Your task to perform on an android device: Open network settings Image 0: 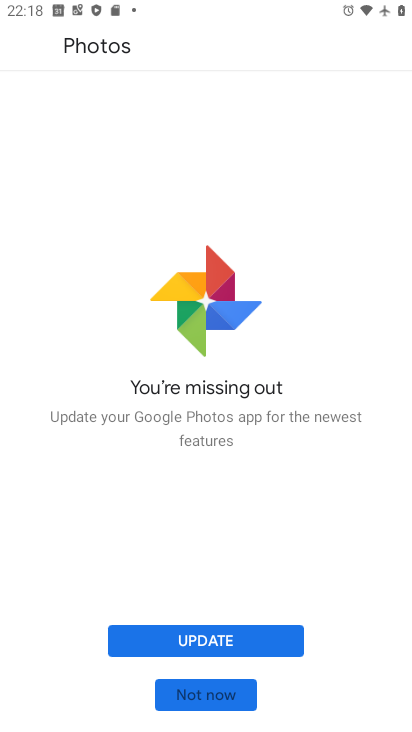
Step 0: press home button
Your task to perform on an android device: Open network settings Image 1: 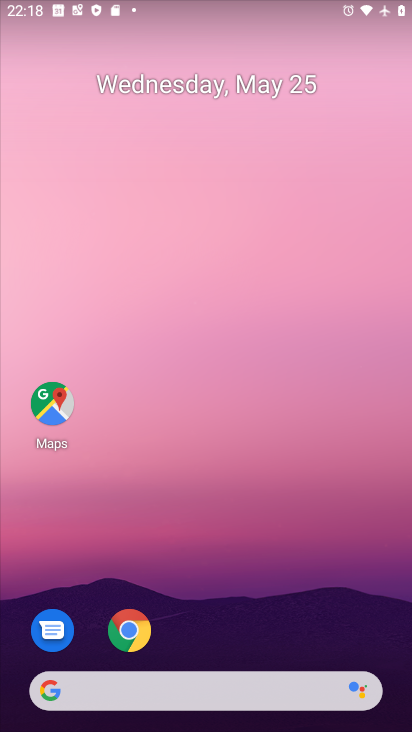
Step 1: drag from (228, 637) to (223, 309)
Your task to perform on an android device: Open network settings Image 2: 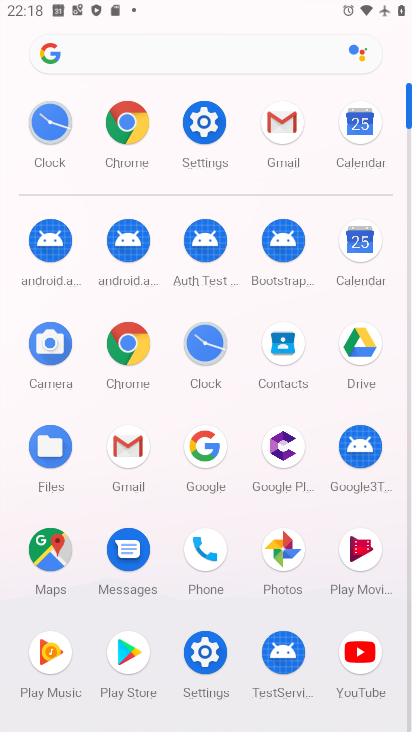
Step 2: click (220, 130)
Your task to perform on an android device: Open network settings Image 3: 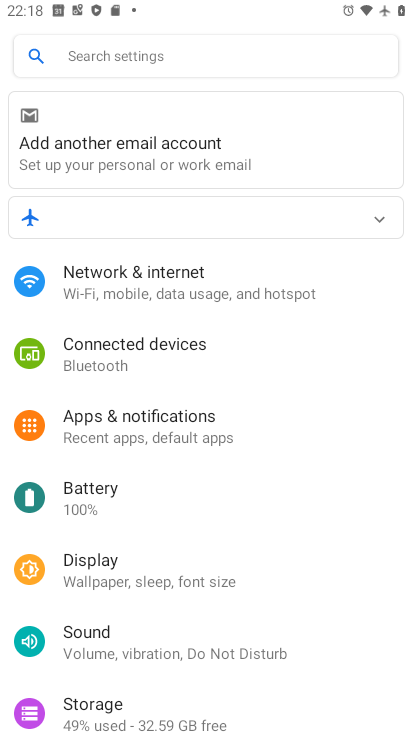
Step 3: click (124, 280)
Your task to perform on an android device: Open network settings Image 4: 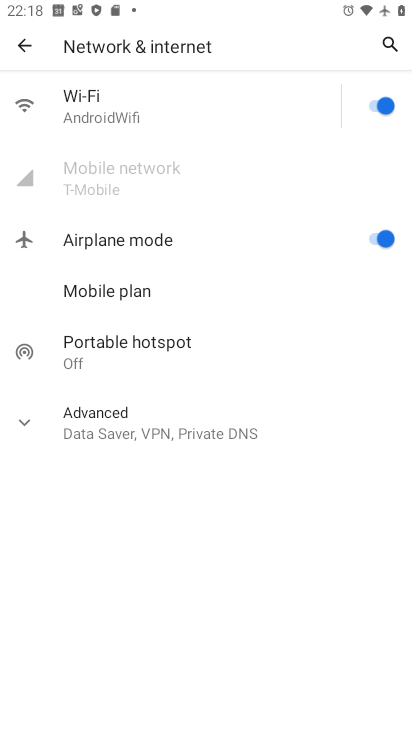
Step 4: task complete